Your task to perform on an android device: Search for Mexican restaurants on Maps Image 0: 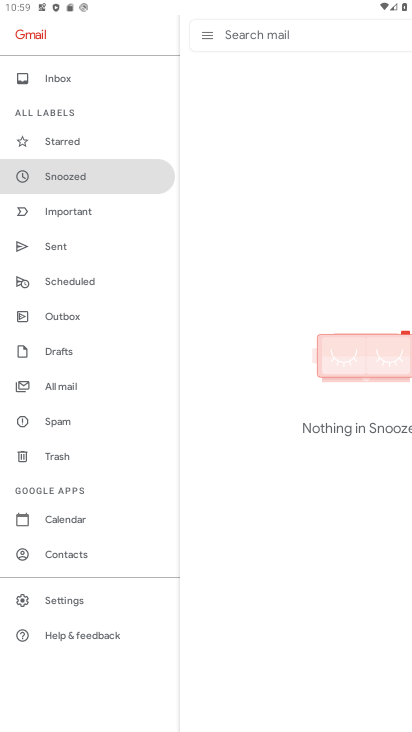
Step 0: press back button
Your task to perform on an android device: Search for Mexican restaurants on Maps Image 1: 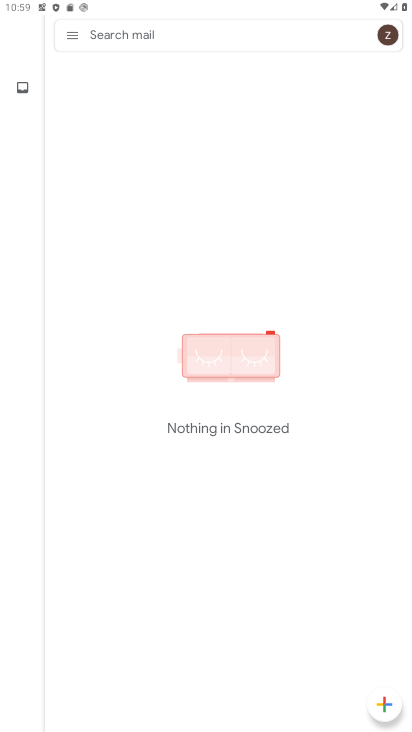
Step 1: click (159, 38)
Your task to perform on an android device: Search for Mexican restaurants on Maps Image 2: 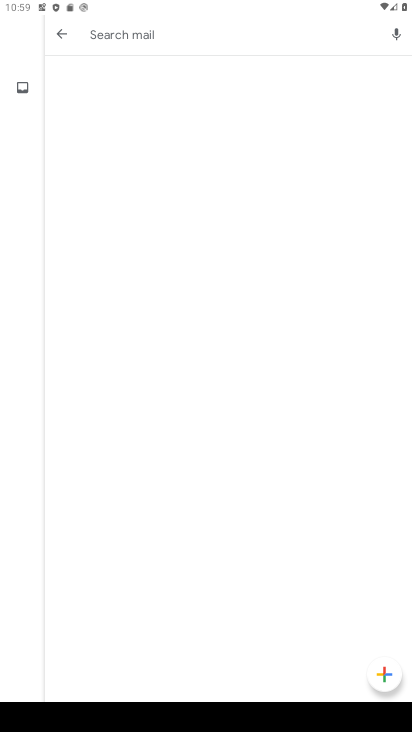
Step 2: click (159, 38)
Your task to perform on an android device: Search for Mexican restaurants on Maps Image 3: 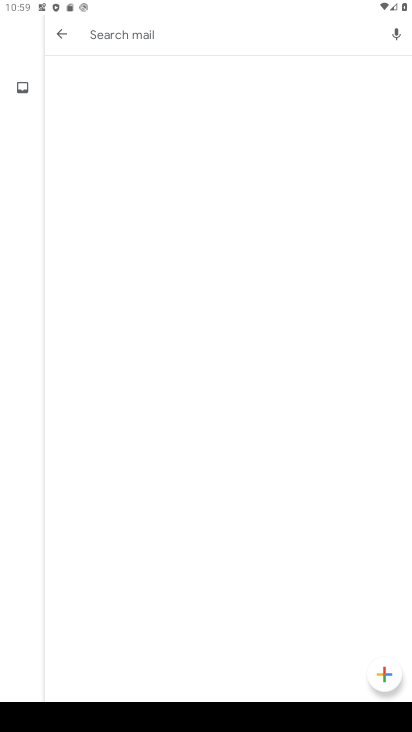
Step 3: click (155, 34)
Your task to perform on an android device: Search for Mexican restaurants on Maps Image 4: 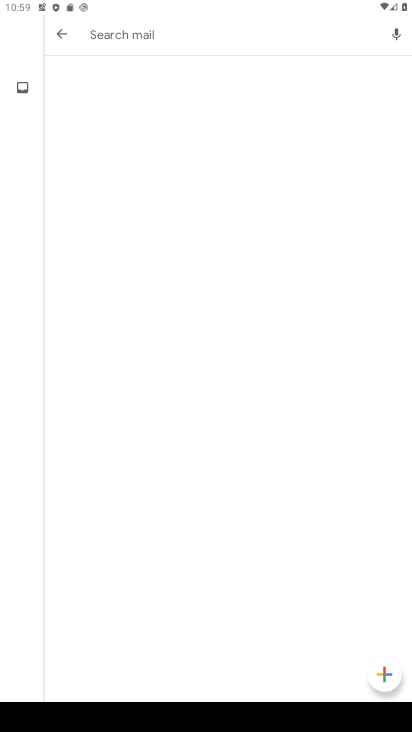
Step 4: type "mexican restaurants"
Your task to perform on an android device: Search for Mexican restaurants on Maps Image 5: 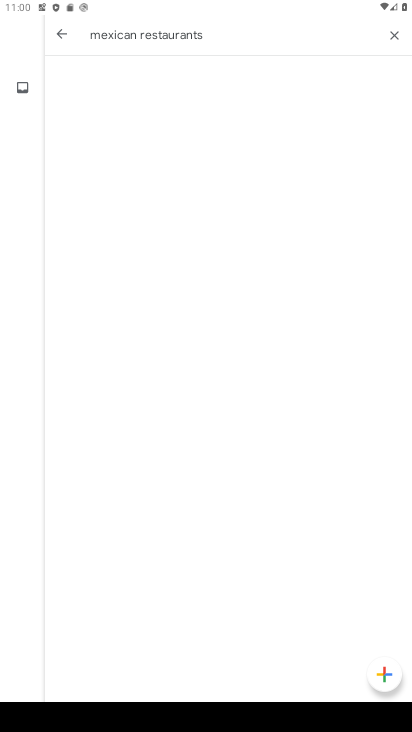
Step 5: click (57, 28)
Your task to perform on an android device: Search for Mexican restaurants on Maps Image 6: 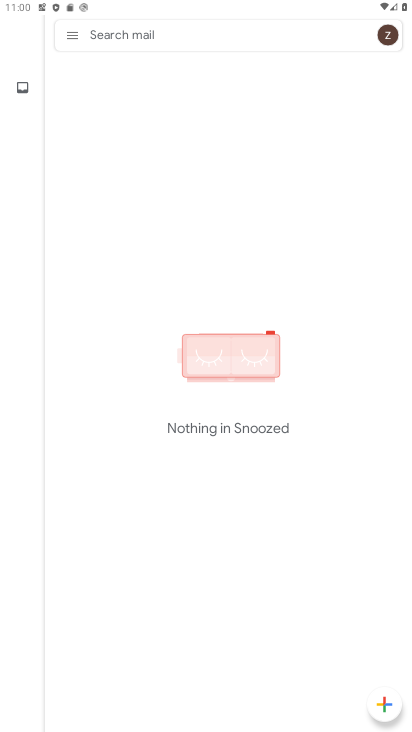
Step 6: click (38, 150)
Your task to perform on an android device: Search for Mexican restaurants on Maps Image 7: 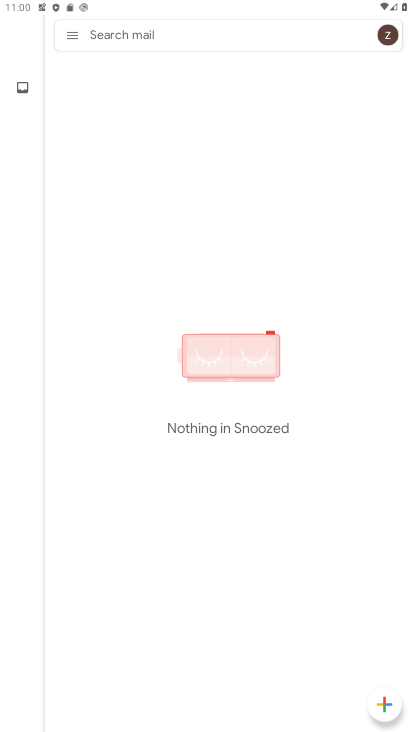
Step 7: click (29, 83)
Your task to perform on an android device: Search for Mexican restaurants on Maps Image 8: 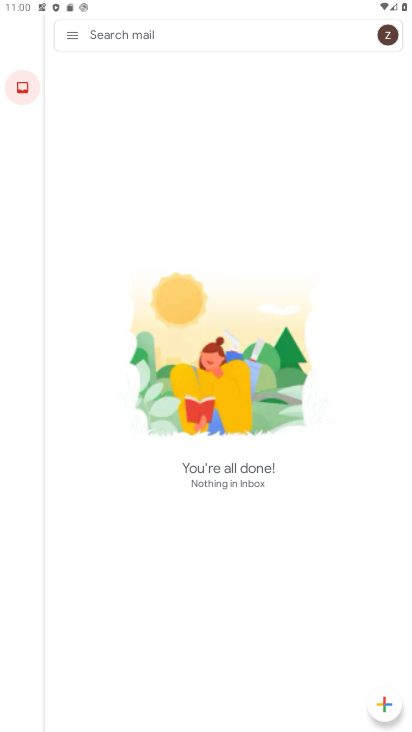
Step 8: click (27, 85)
Your task to perform on an android device: Search for Mexican restaurants on Maps Image 9: 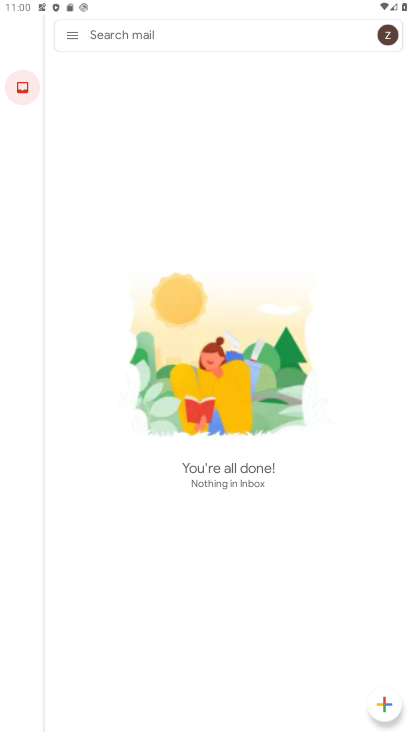
Step 9: press back button
Your task to perform on an android device: Search for Mexican restaurants on Maps Image 10: 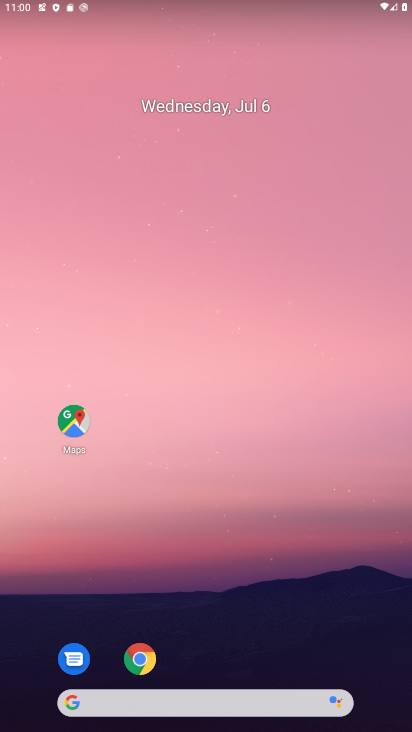
Step 10: click (75, 422)
Your task to perform on an android device: Search for Mexican restaurants on Maps Image 11: 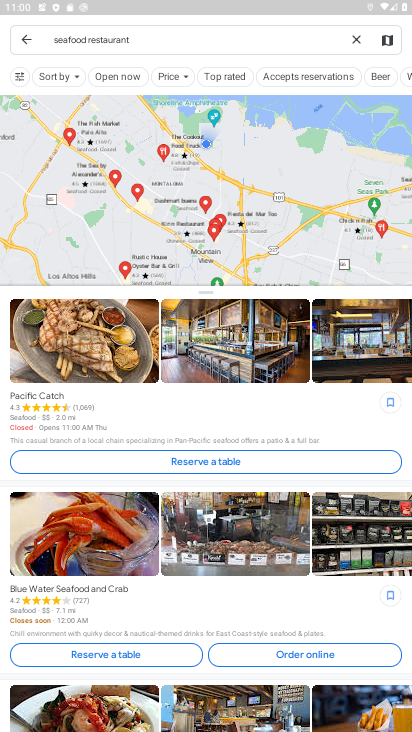
Step 11: click (154, 43)
Your task to perform on an android device: Search for Mexican restaurants on Maps Image 12: 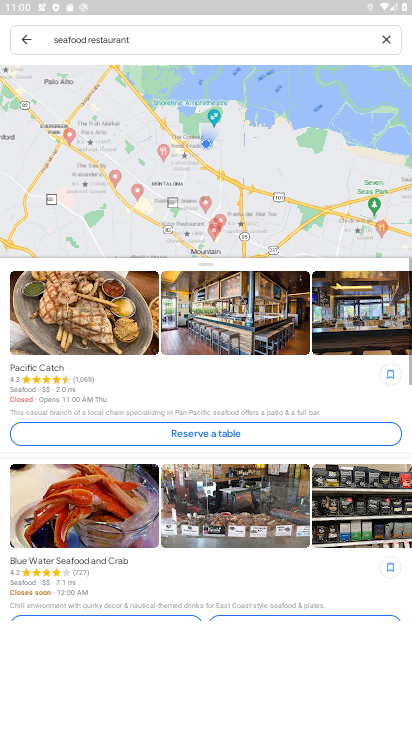
Step 12: click (363, 33)
Your task to perform on an android device: Search for Mexican restaurants on Maps Image 13: 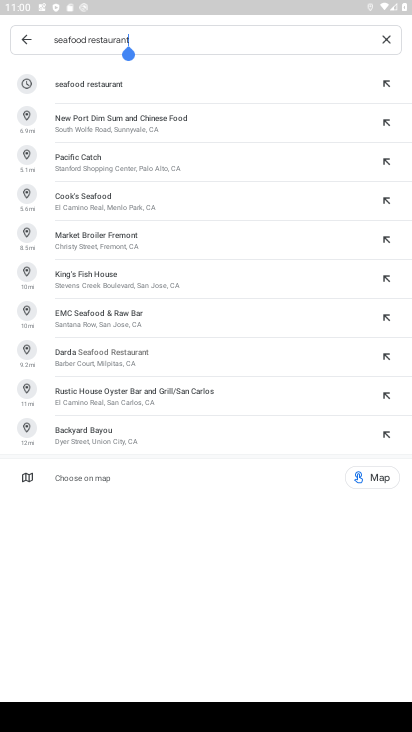
Step 13: click (386, 32)
Your task to perform on an android device: Search for Mexican restaurants on Maps Image 14: 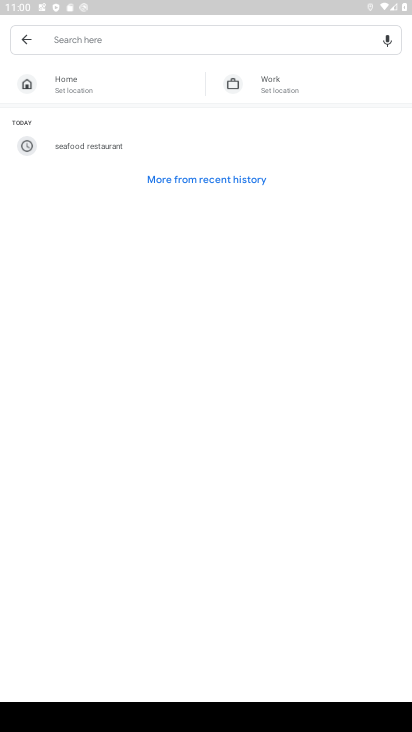
Step 14: type "mexican restaurants"
Your task to perform on an android device: Search for Mexican restaurants on Maps Image 15: 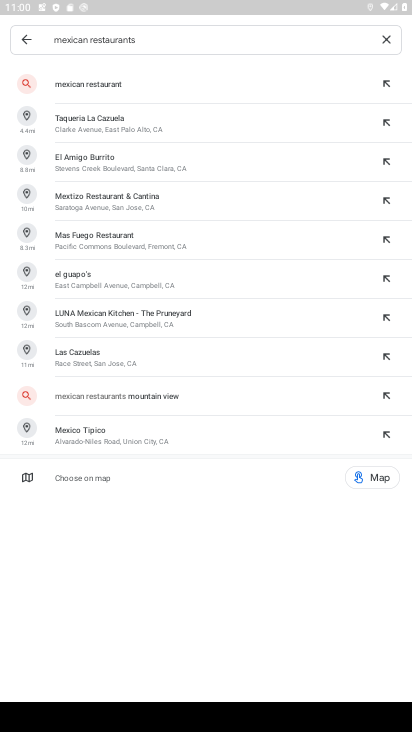
Step 15: click (107, 82)
Your task to perform on an android device: Search for Mexican restaurants on Maps Image 16: 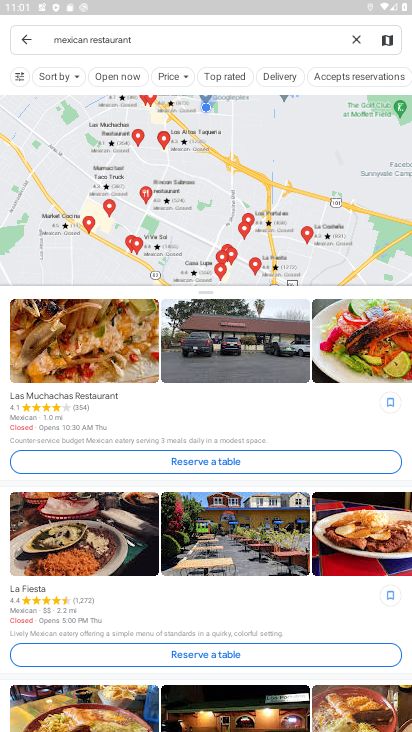
Step 16: task complete